Your task to perform on an android device: uninstall "eBay: The shopping marketplace" Image 0: 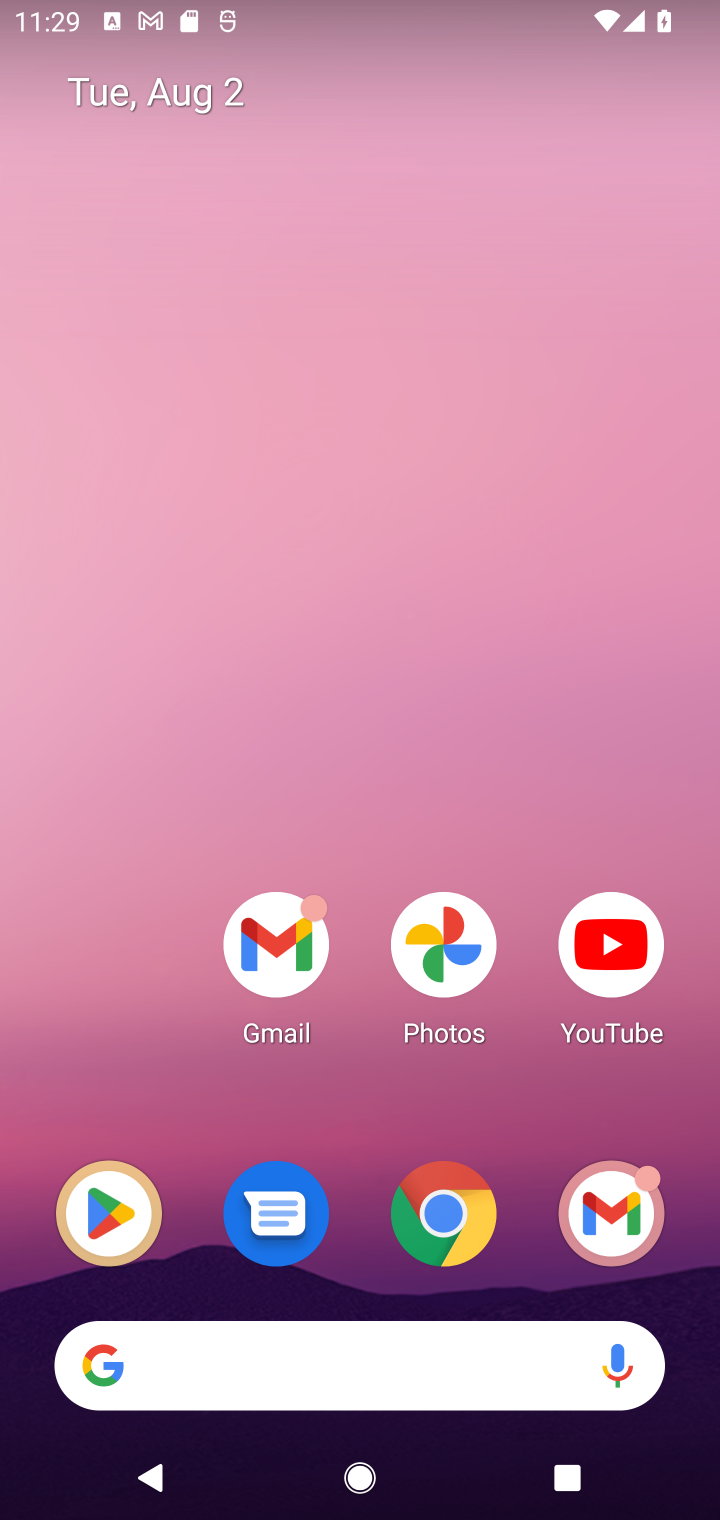
Step 0: click (99, 1250)
Your task to perform on an android device: uninstall "eBay: The shopping marketplace" Image 1: 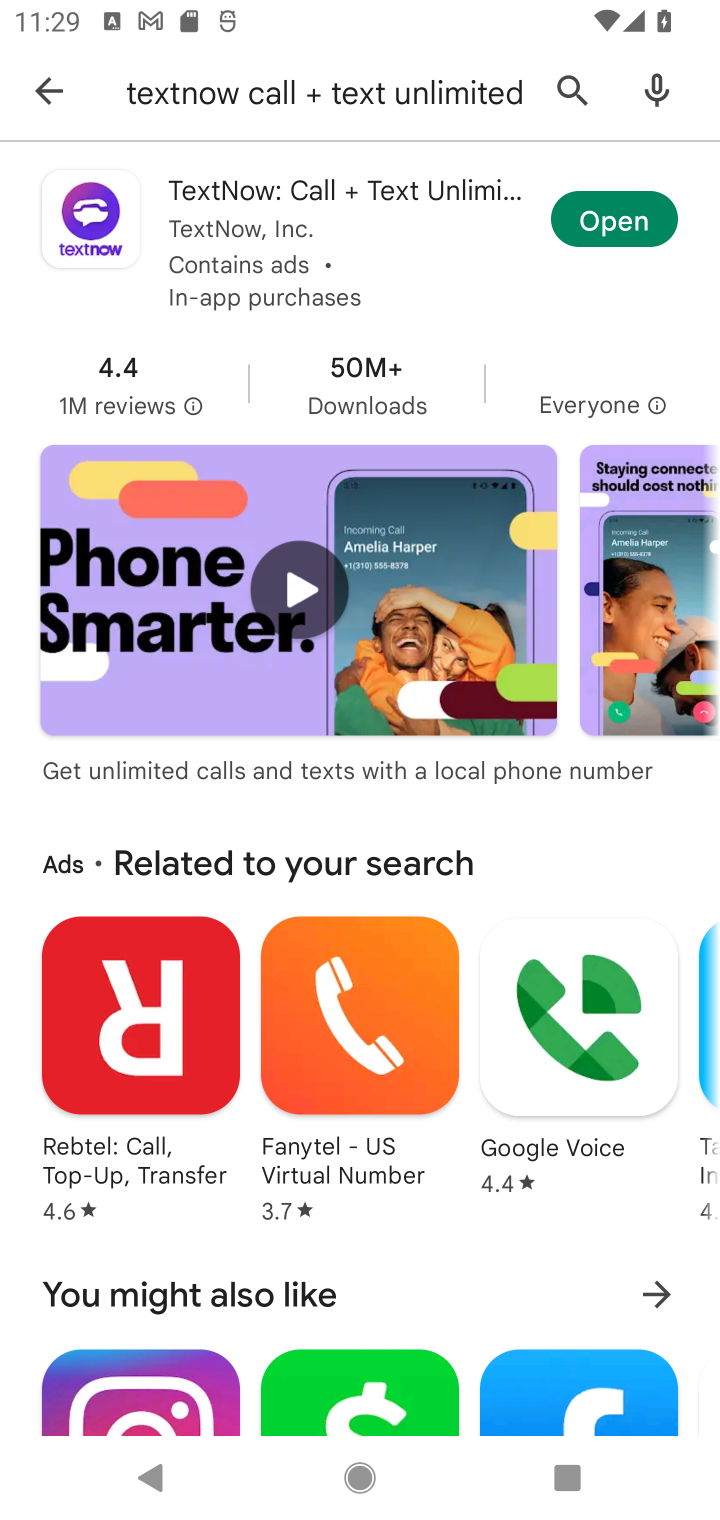
Step 1: click (61, 99)
Your task to perform on an android device: uninstall "eBay: The shopping marketplace" Image 2: 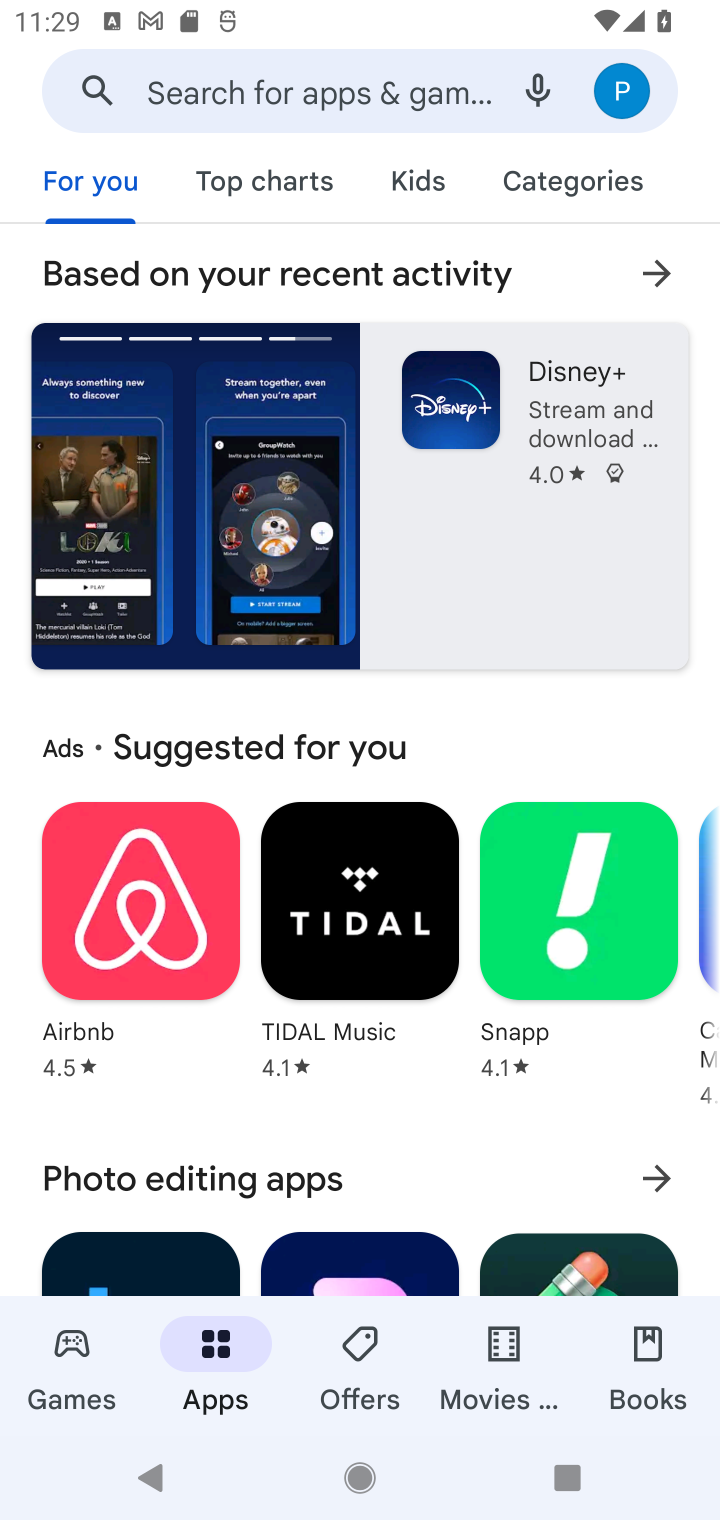
Step 2: click (216, 98)
Your task to perform on an android device: uninstall "eBay: The shopping marketplace" Image 3: 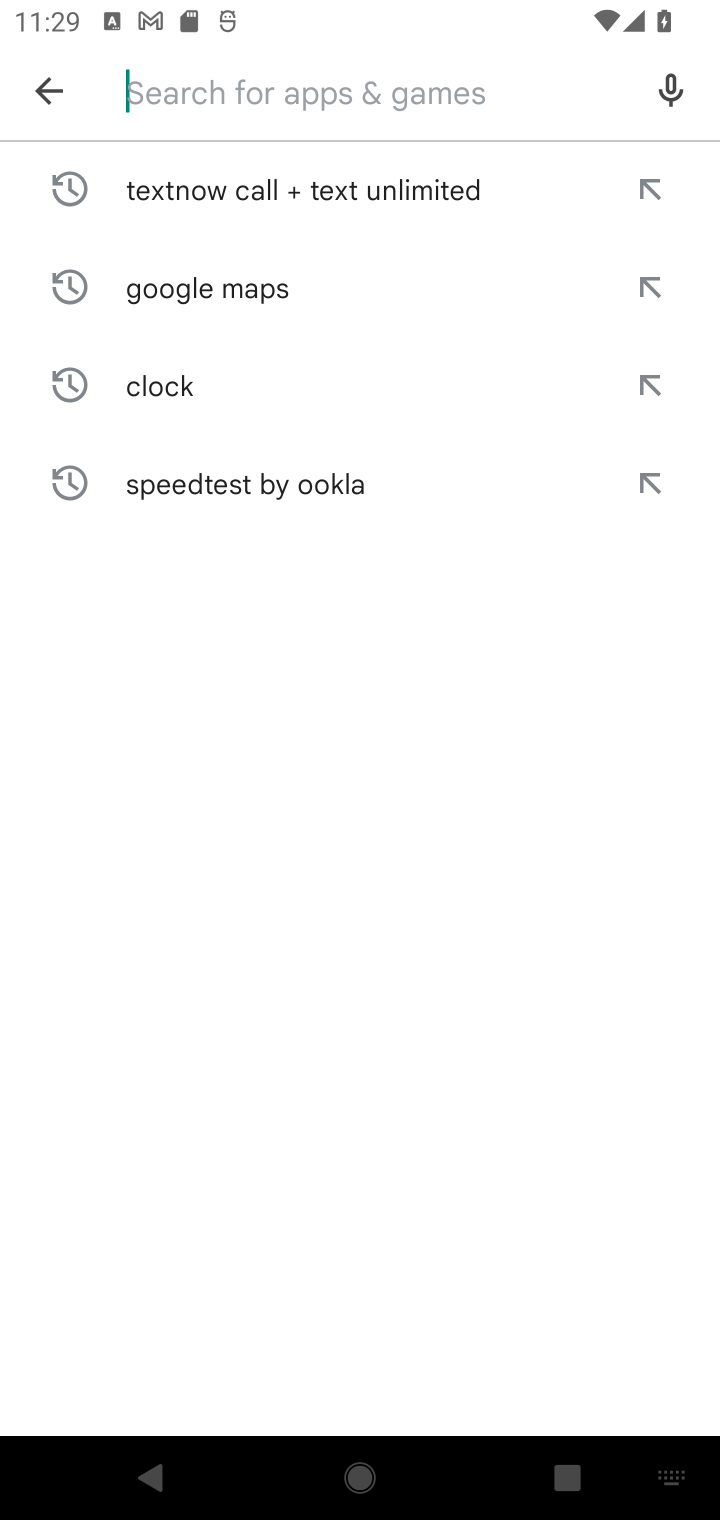
Step 3: type "eBay"
Your task to perform on an android device: uninstall "eBay: The shopping marketplace" Image 4: 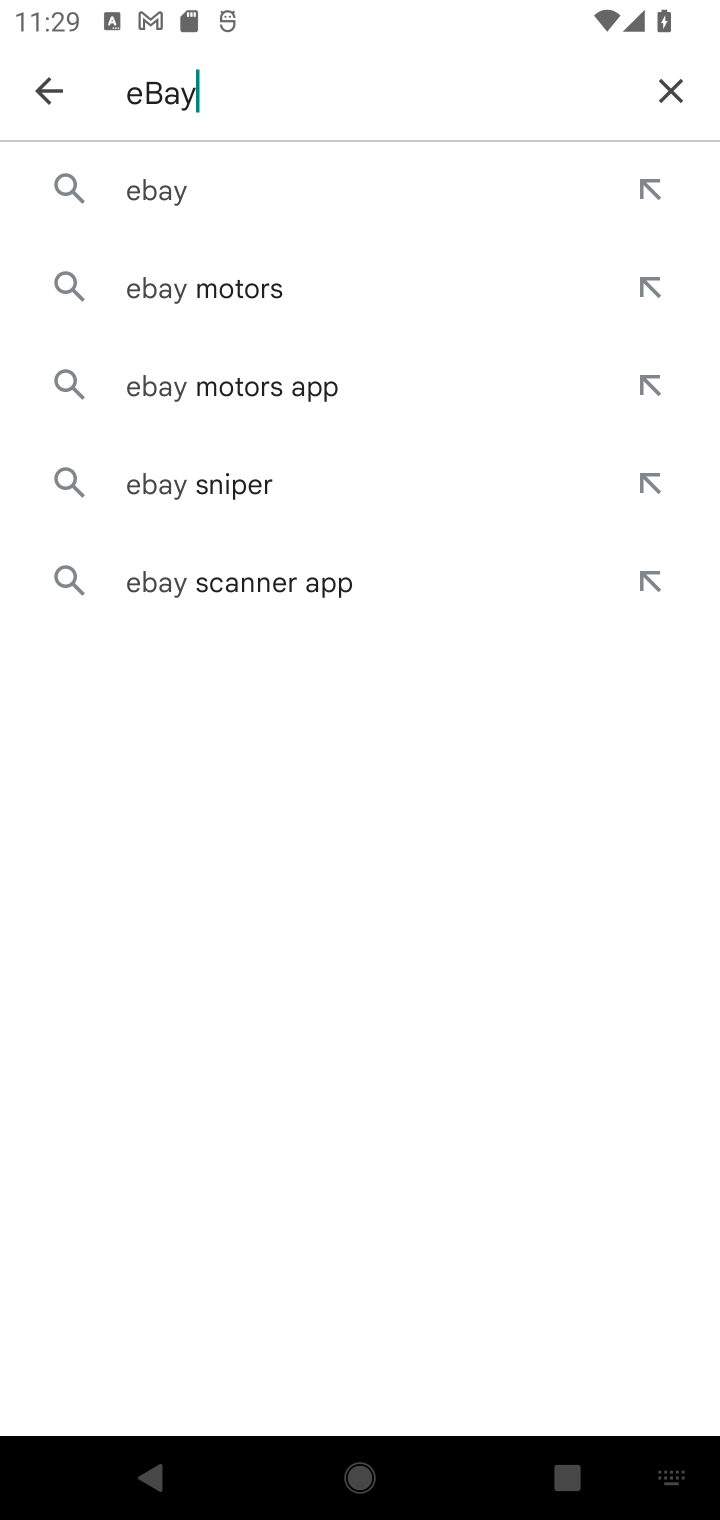
Step 4: click (164, 195)
Your task to perform on an android device: uninstall "eBay: The shopping marketplace" Image 5: 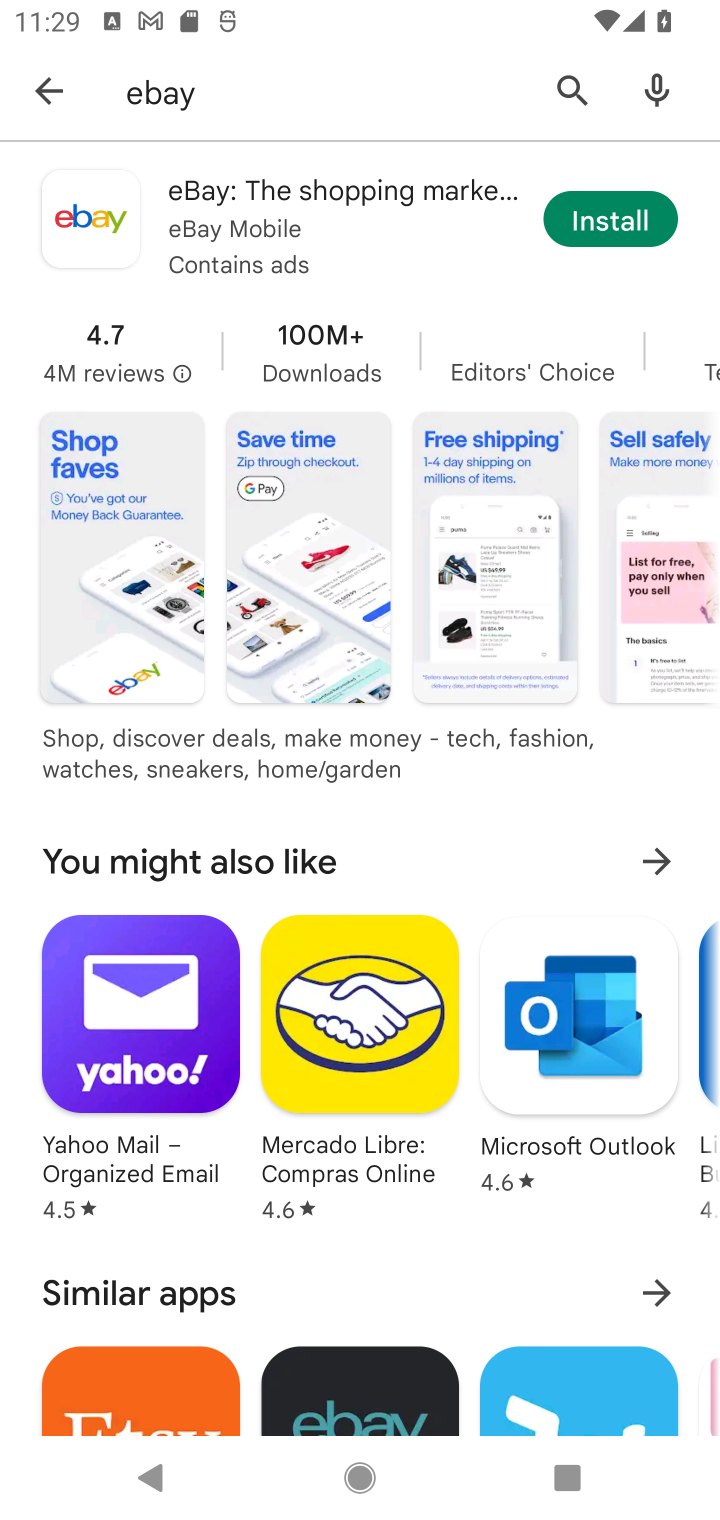
Step 5: click (598, 217)
Your task to perform on an android device: uninstall "eBay: The shopping marketplace" Image 6: 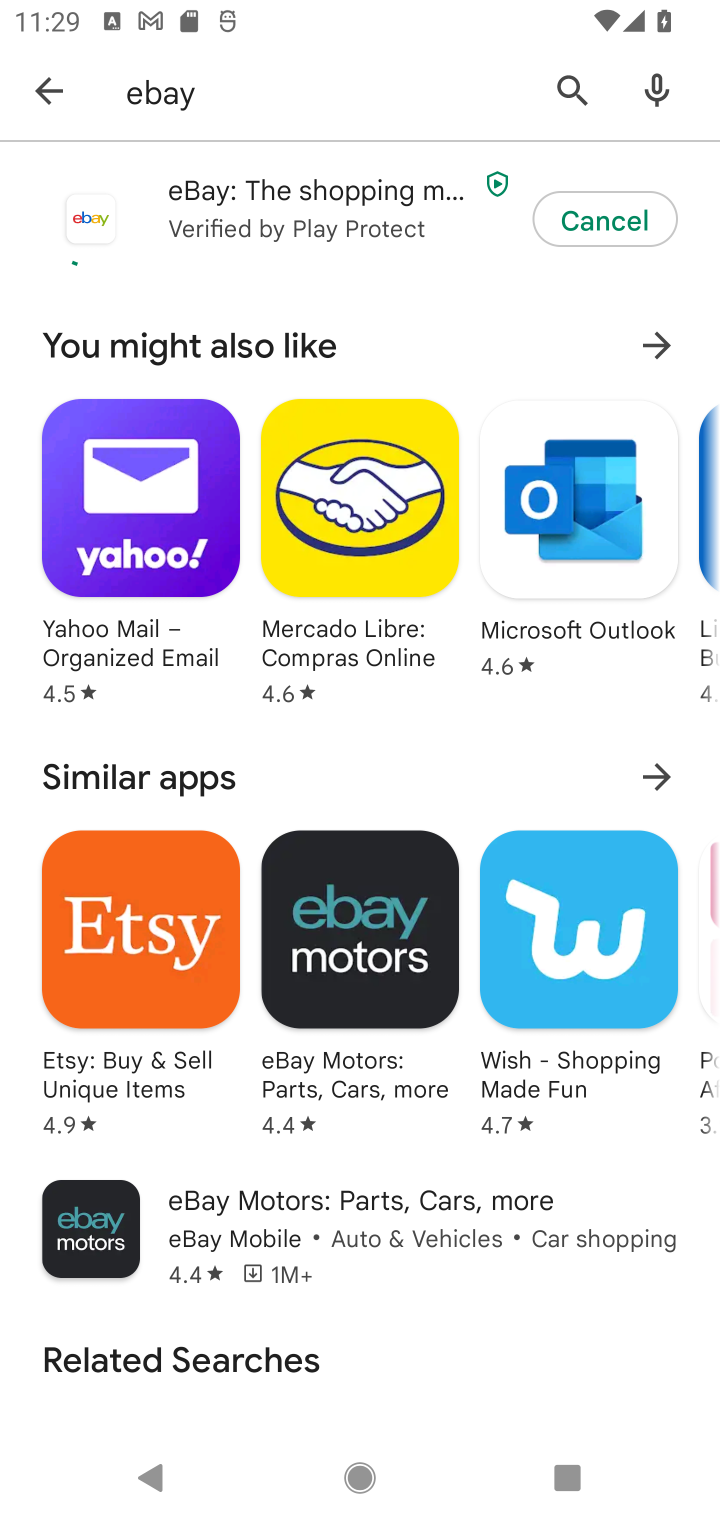
Step 6: task complete